Your task to perform on an android device: change your default location settings in chrome Image 0: 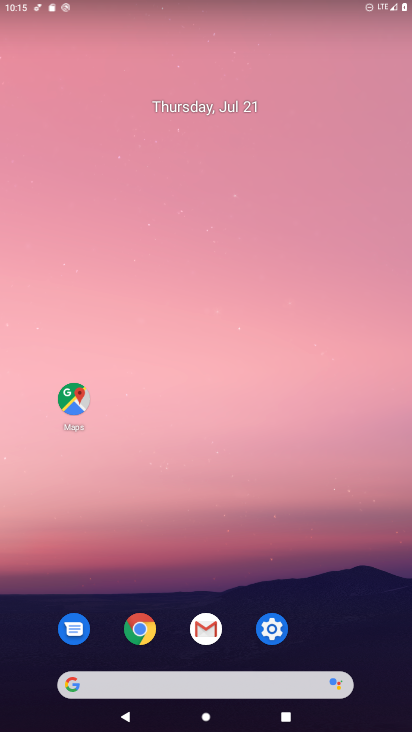
Step 0: click (150, 625)
Your task to perform on an android device: change your default location settings in chrome Image 1: 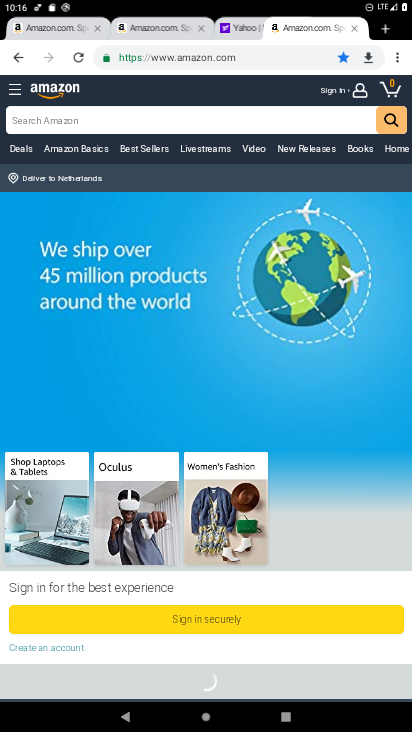
Step 1: click (393, 60)
Your task to perform on an android device: change your default location settings in chrome Image 2: 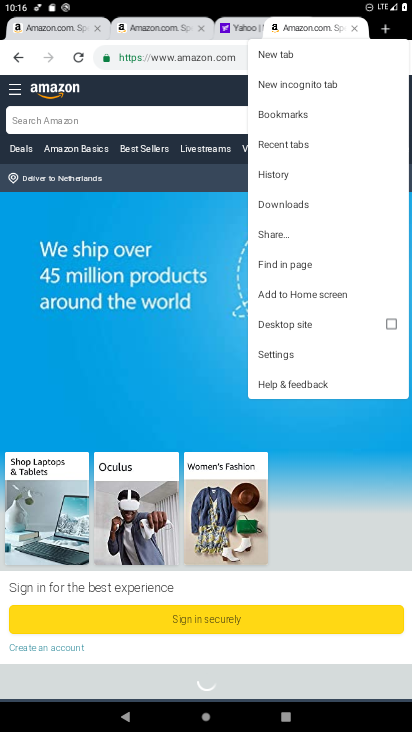
Step 2: click (268, 353)
Your task to perform on an android device: change your default location settings in chrome Image 3: 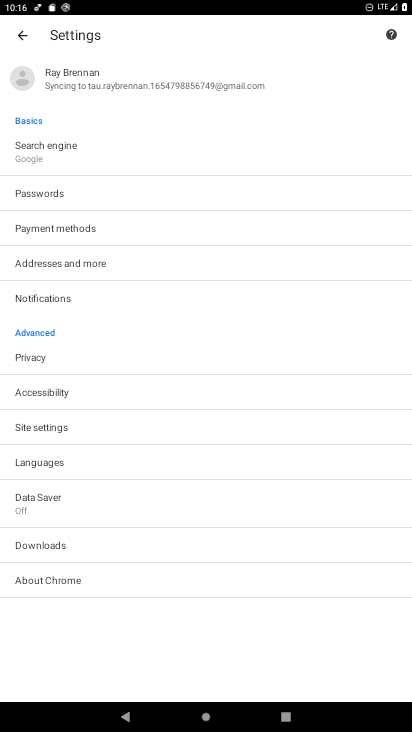
Step 3: click (43, 425)
Your task to perform on an android device: change your default location settings in chrome Image 4: 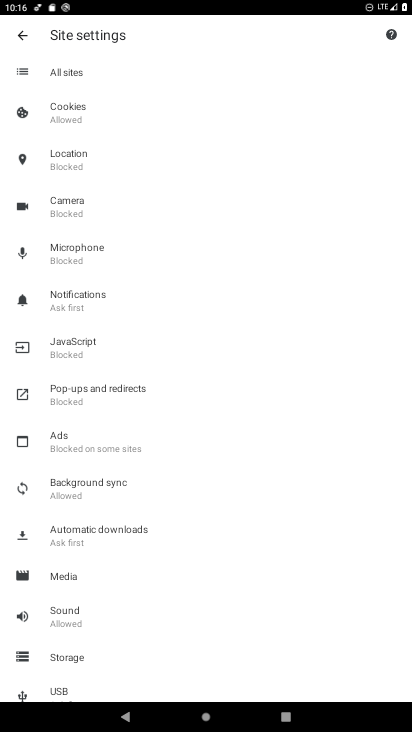
Step 4: click (73, 162)
Your task to perform on an android device: change your default location settings in chrome Image 5: 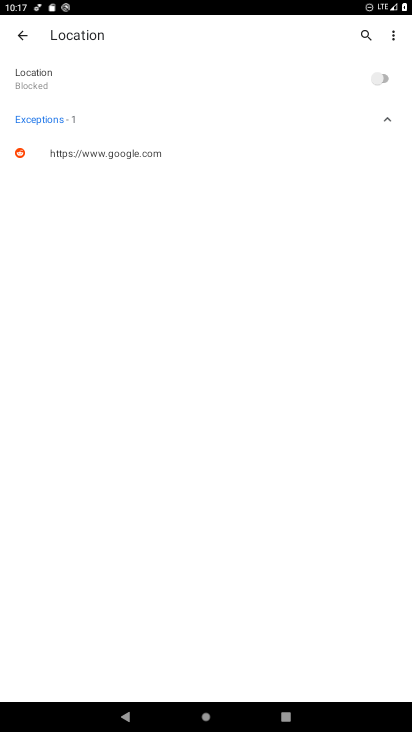
Step 5: task complete